Your task to perform on an android device: Open internet settings Image 0: 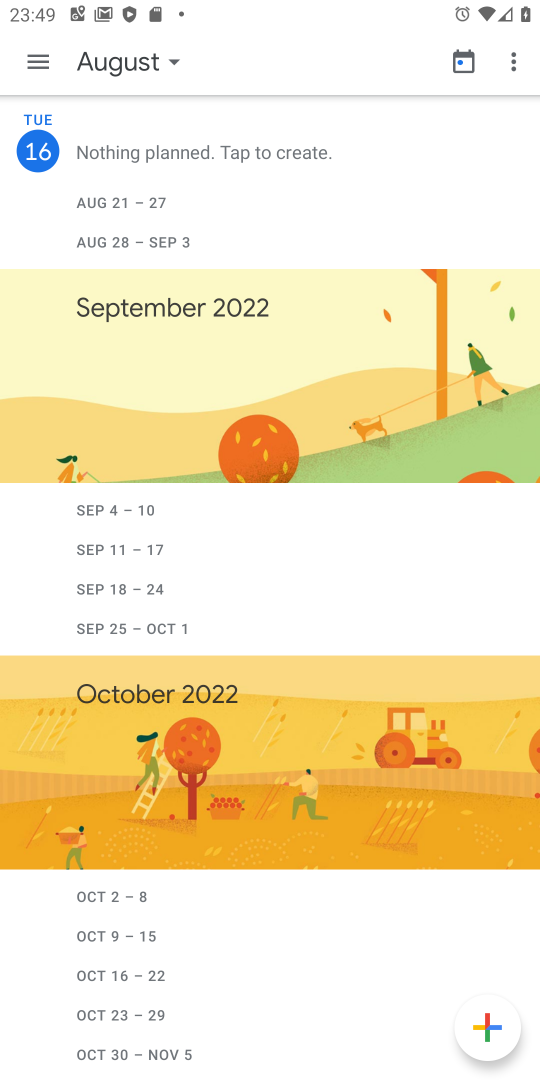
Step 0: press home button
Your task to perform on an android device: Open internet settings Image 1: 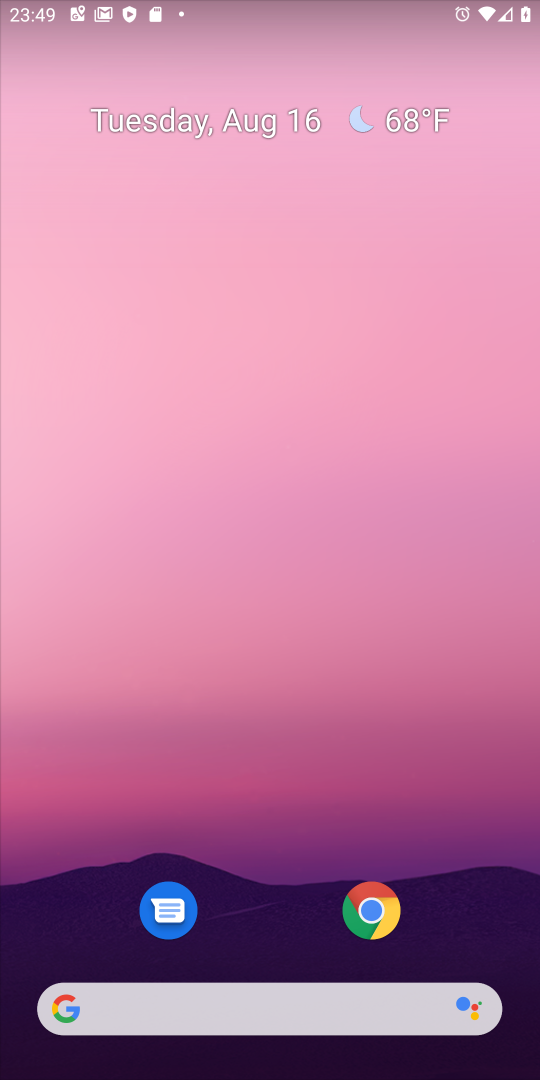
Step 1: drag from (251, 896) to (287, 185)
Your task to perform on an android device: Open internet settings Image 2: 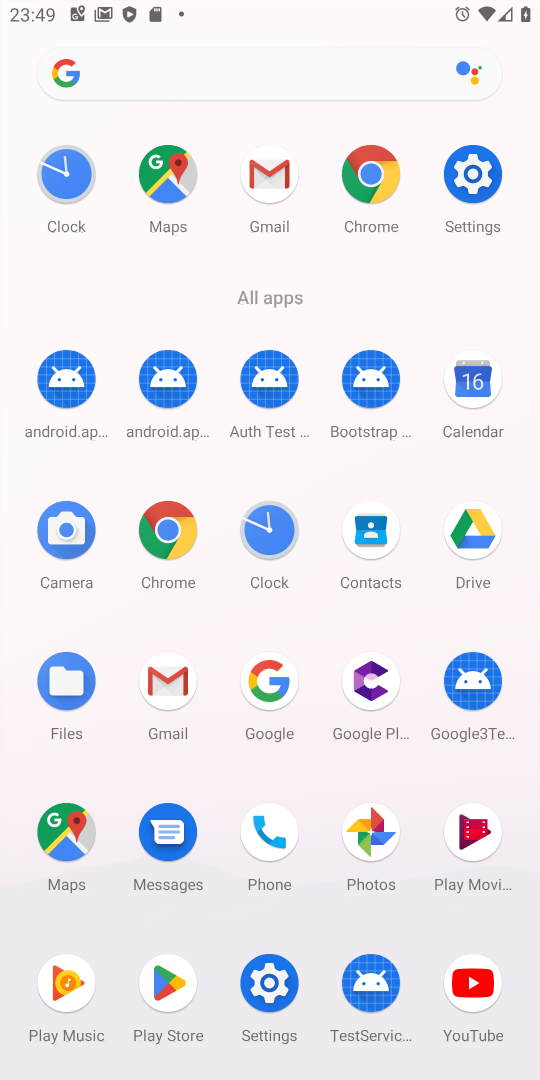
Step 2: click (239, 997)
Your task to perform on an android device: Open internet settings Image 3: 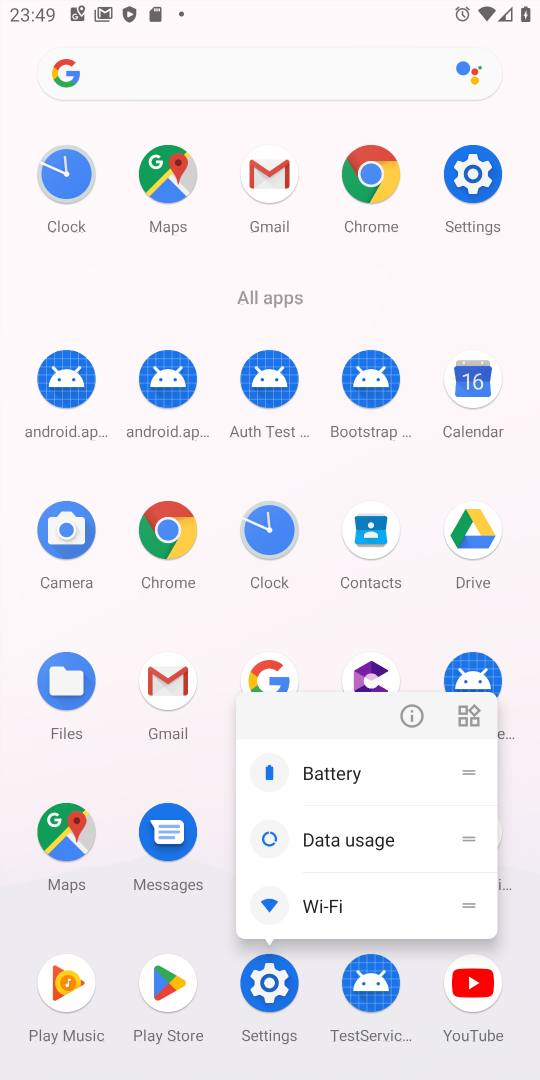
Step 3: click (254, 984)
Your task to perform on an android device: Open internet settings Image 4: 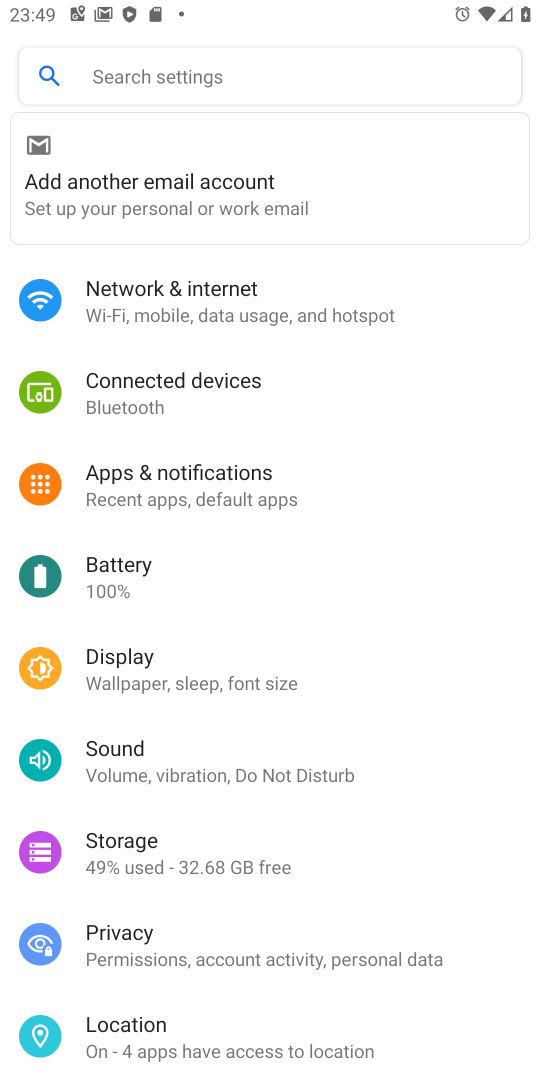
Step 4: click (248, 293)
Your task to perform on an android device: Open internet settings Image 5: 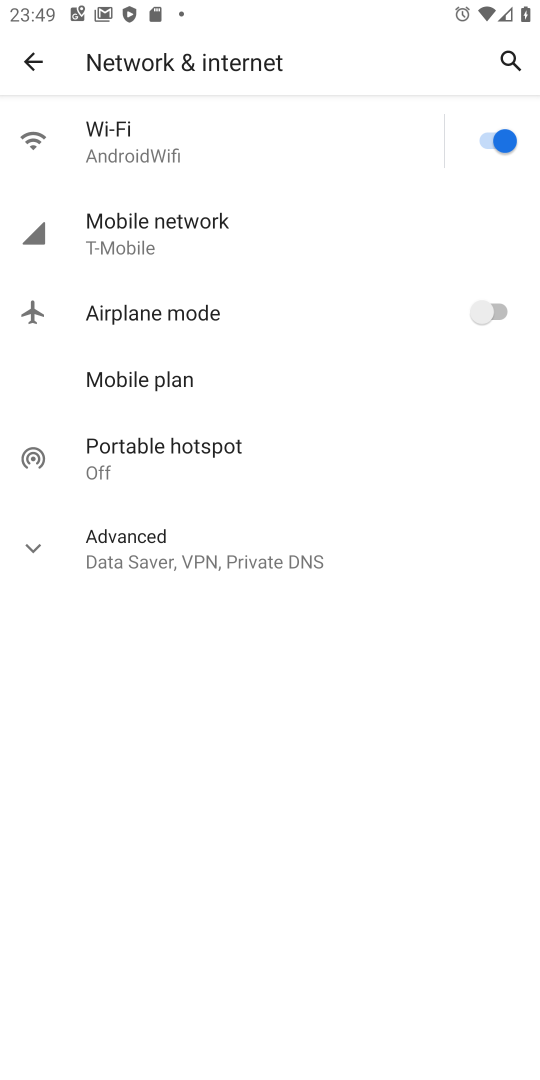
Step 5: task complete